Your task to perform on an android device: allow cookies in the chrome app Image 0: 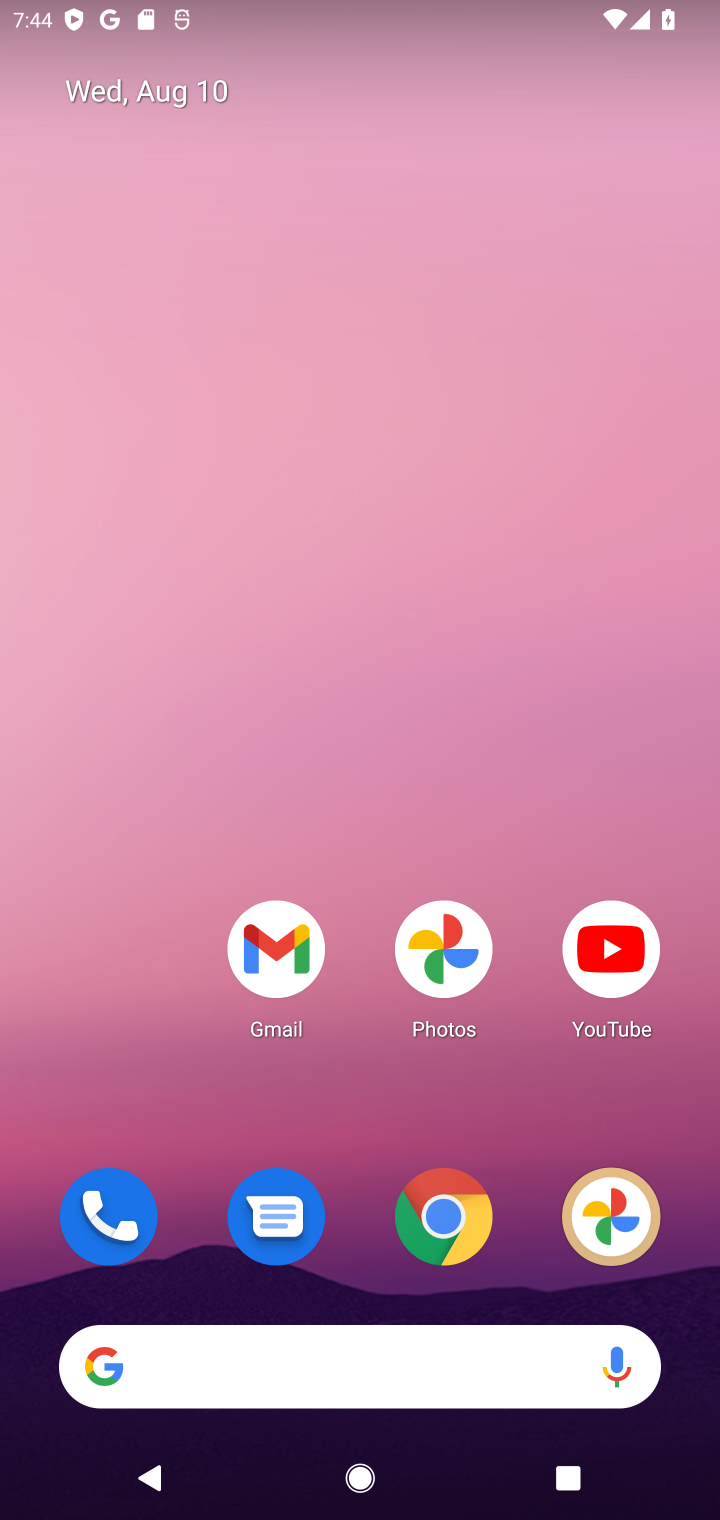
Step 0: click (432, 1219)
Your task to perform on an android device: allow cookies in the chrome app Image 1: 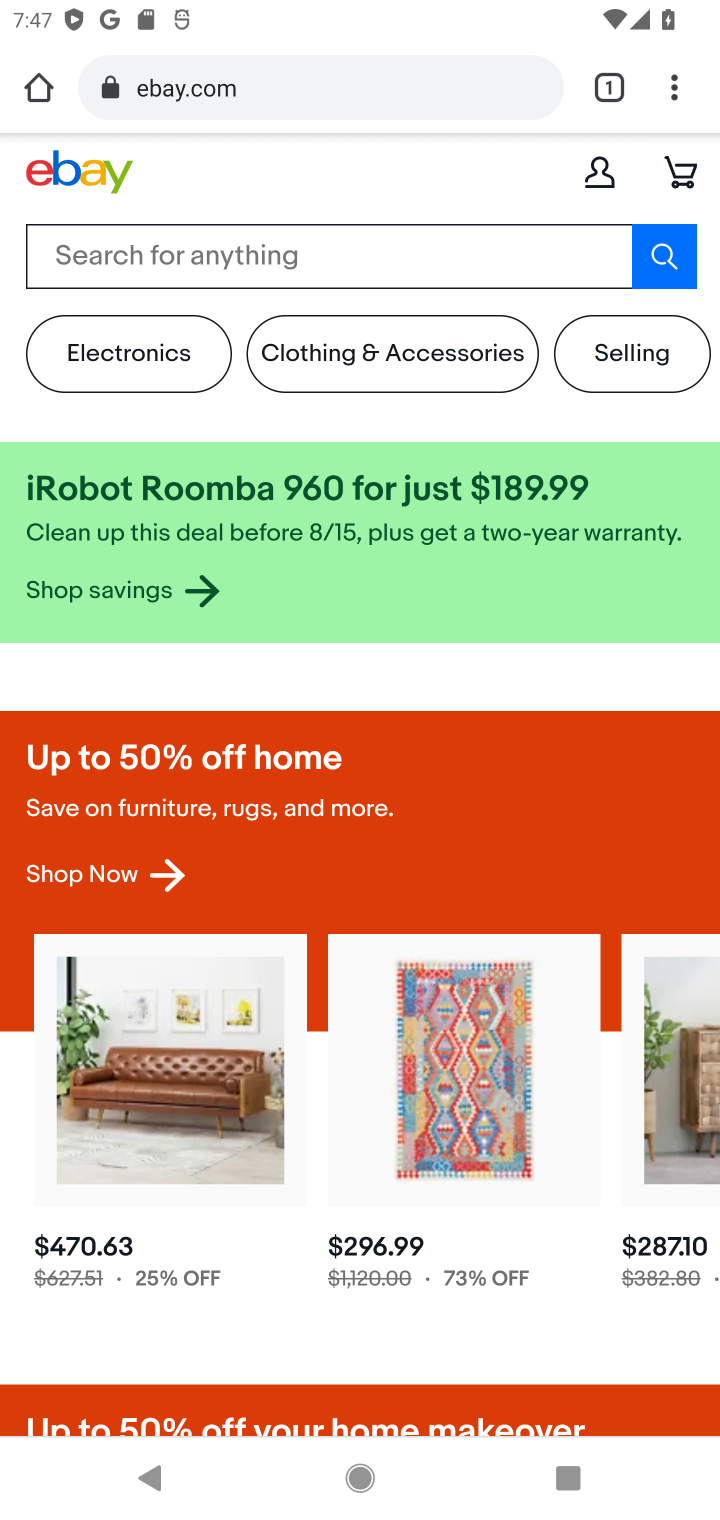
Step 1: click (675, 87)
Your task to perform on an android device: allow cookies in the chrome app Image 2: 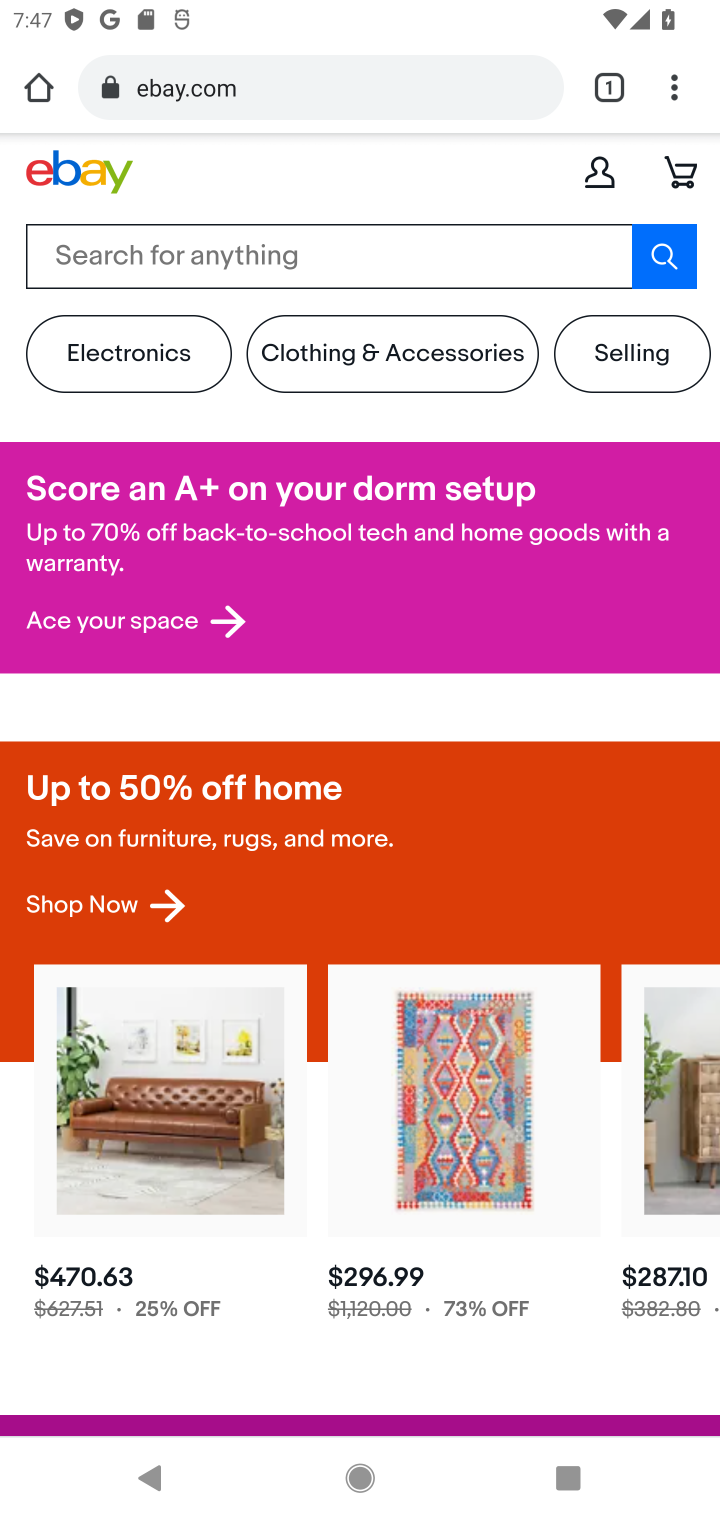
Step 2: click (675, 74)
Your task to perform on an android device: allow cookies in the chrome app Image 3: 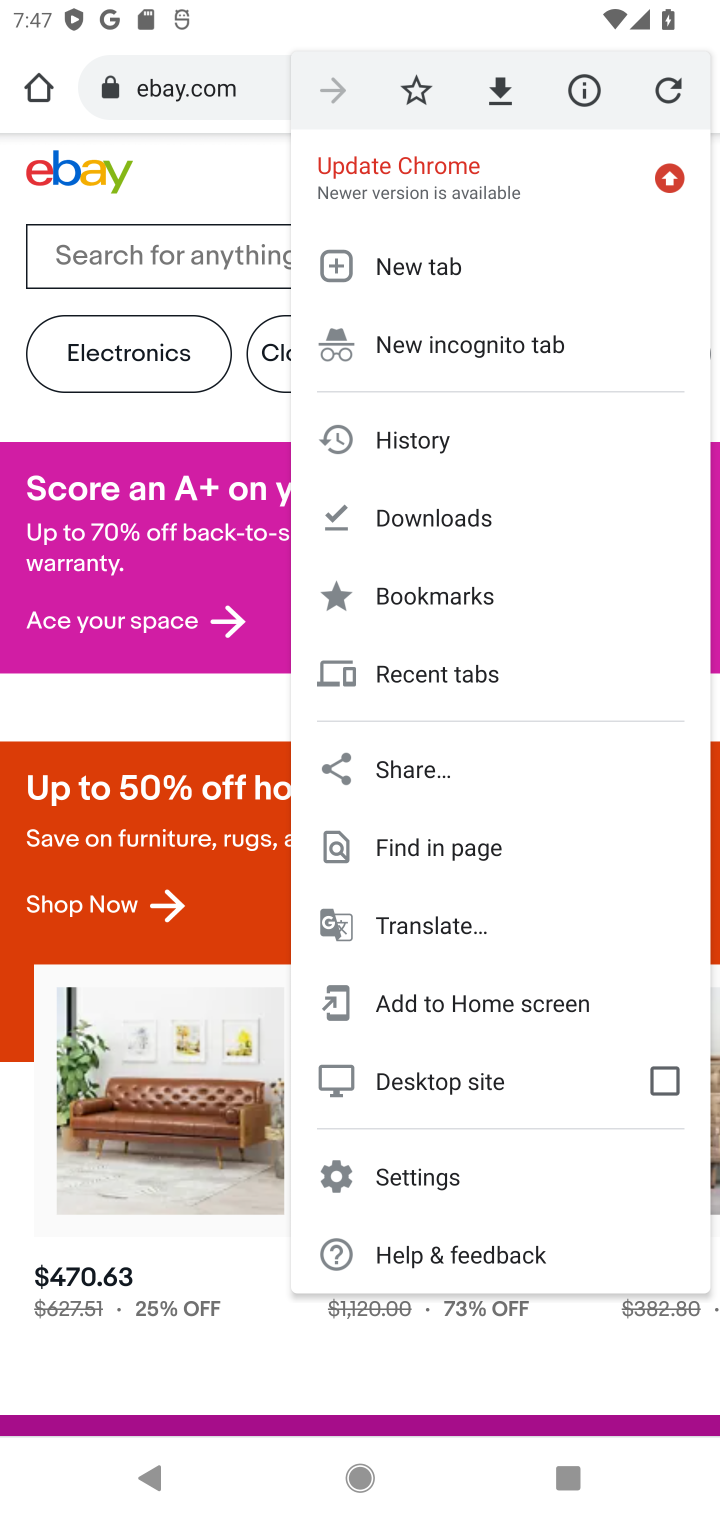
Step 3: click (412, 1172)
Your task to perform on an android device: allow cookies in the chrome app Image 4: 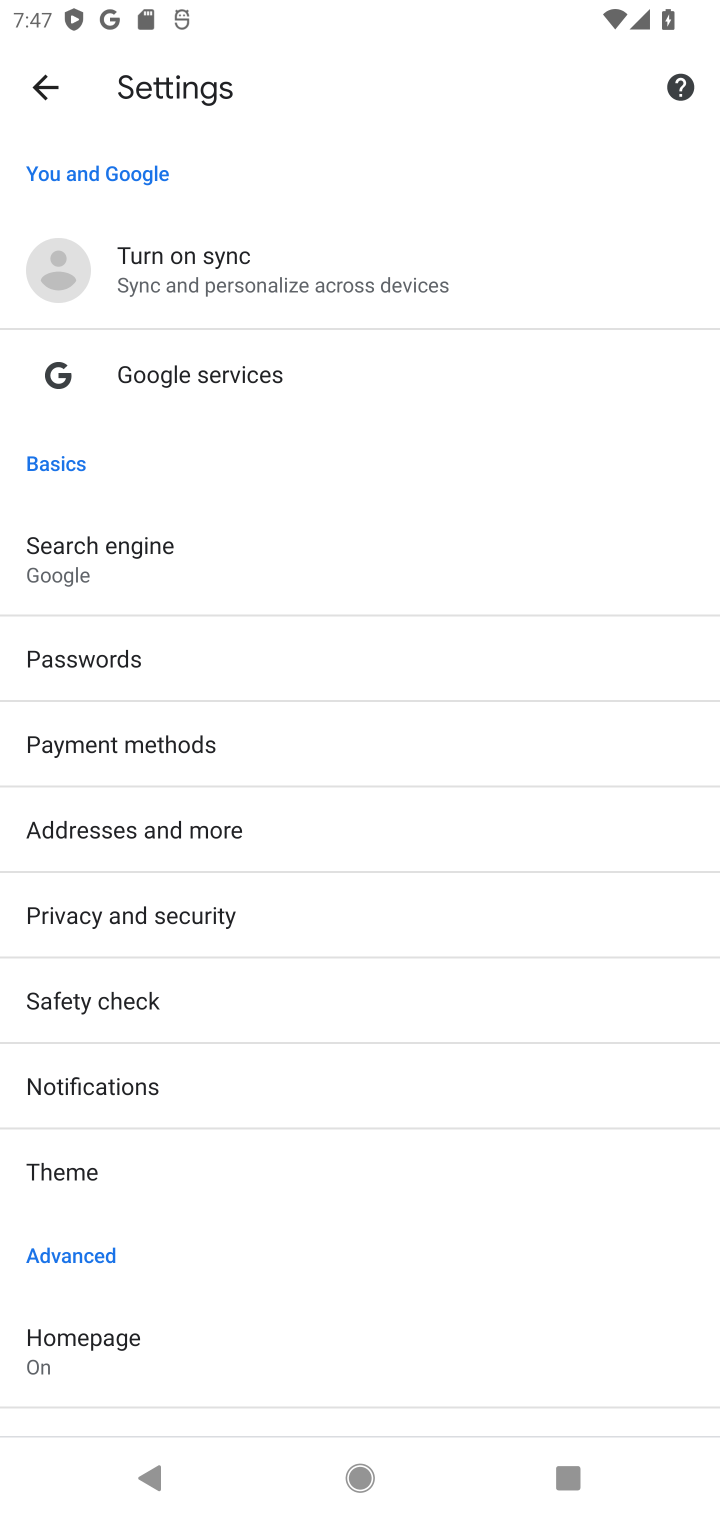
Step 4: drag from (82, 1072) to (423, 257)
Your task to perform on an android device: allow cookies in the chrome app Image 5: 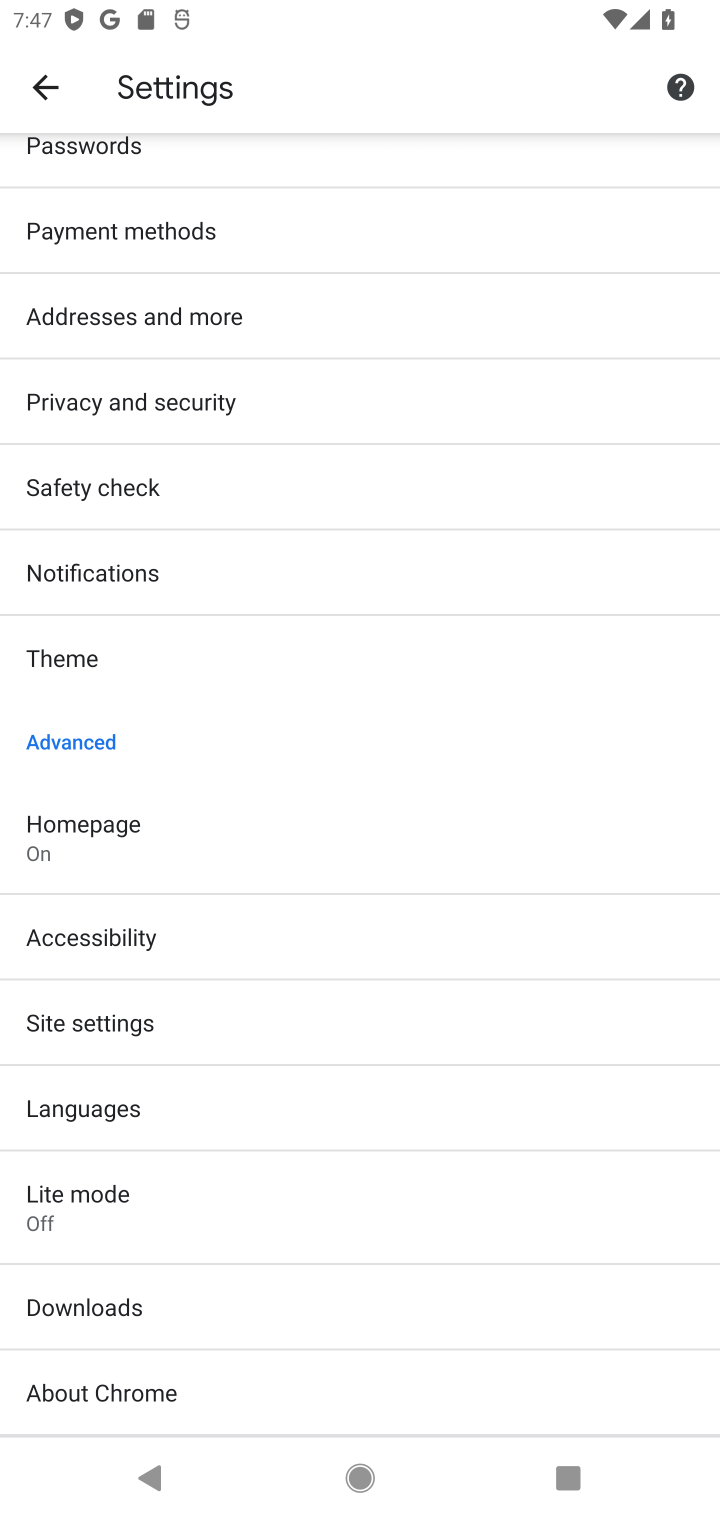
Step 5: click (135, 1033)
Your task to perform on an android device: allow cookies in the chrome app Image 6: 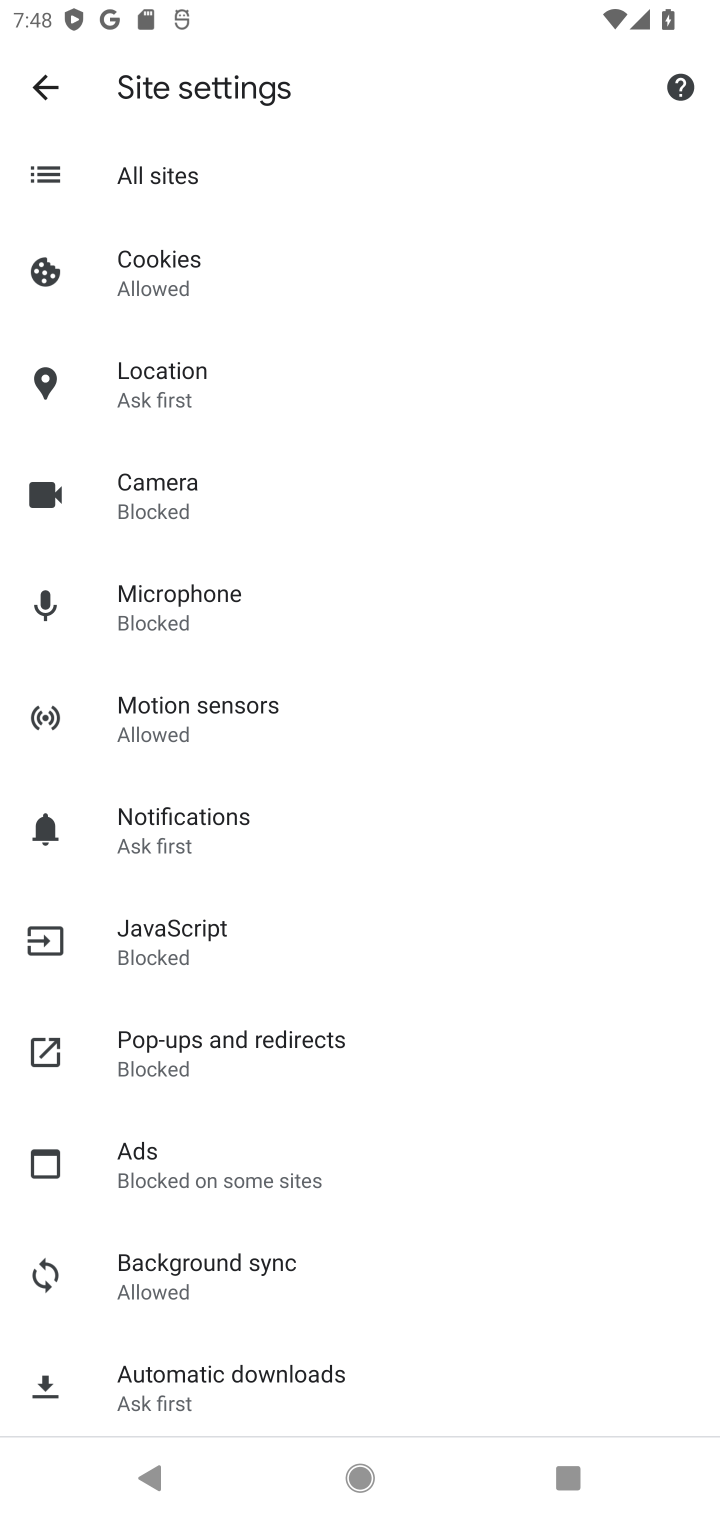
Step 6: click (171, 269)
Your task to perform on an android device: allow cookies in the chrome app Image 7: 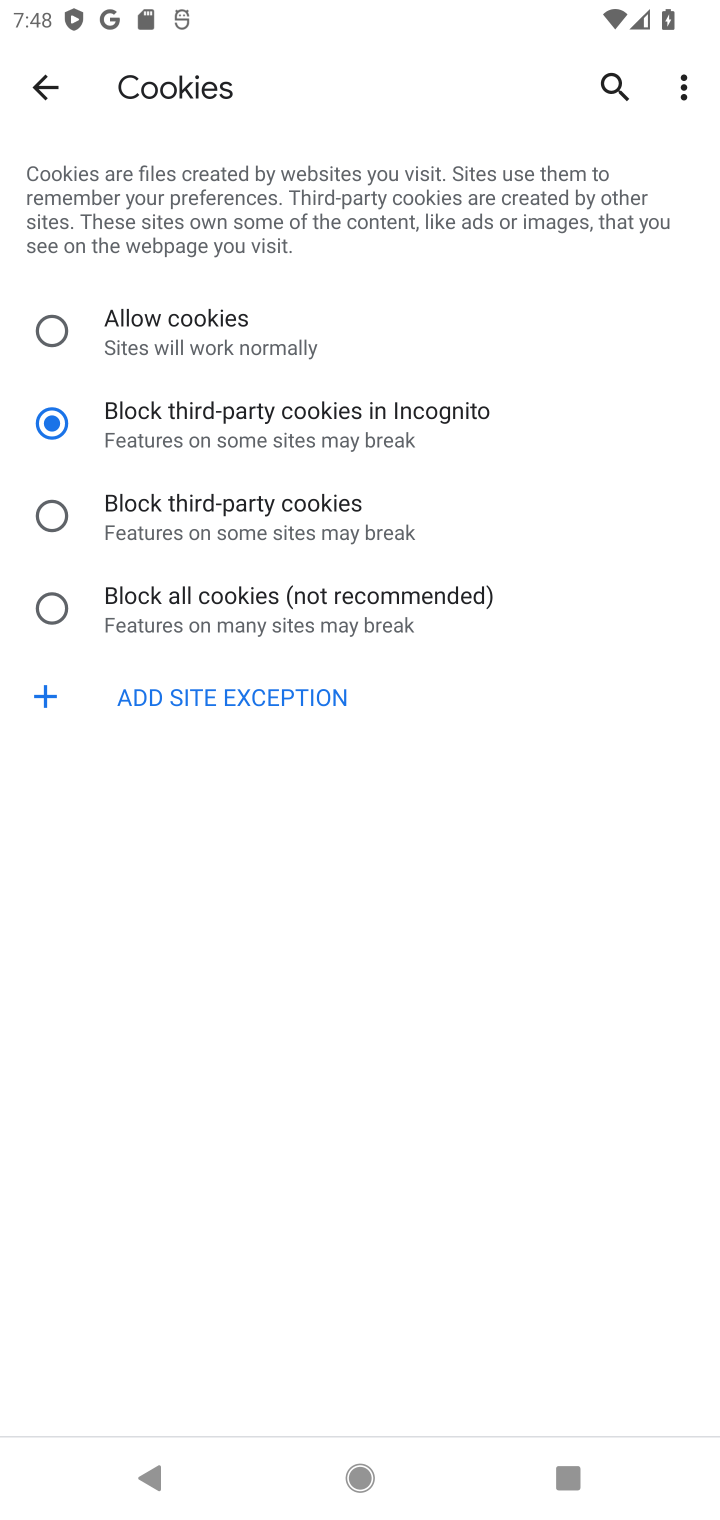
Step 7: task complete